Your task to perform on an android device: Go to eBay Image 0: 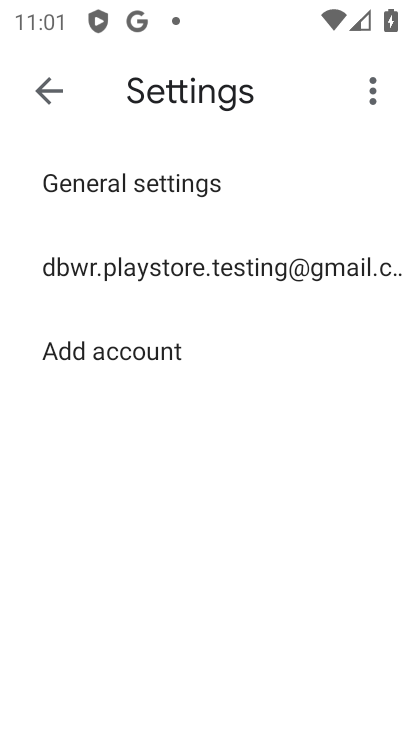
Step 0: press home button
Your task to perform on an android device: Go to eBay Image 1: 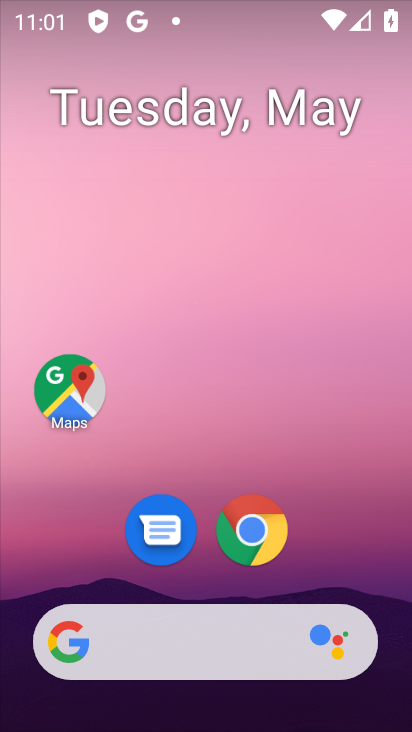
Step 1: click (249, 533)
Your task to perform on an android device: Go to eBay Image 2: 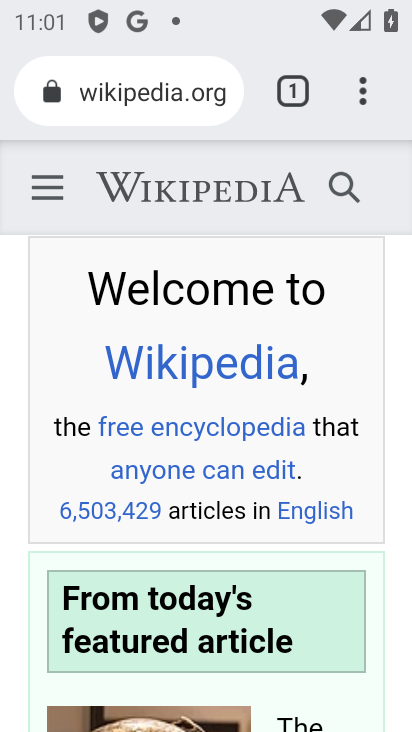
Step 2: click (161, 104)
Your task to perform on an android device: Go to eBay Image 3: 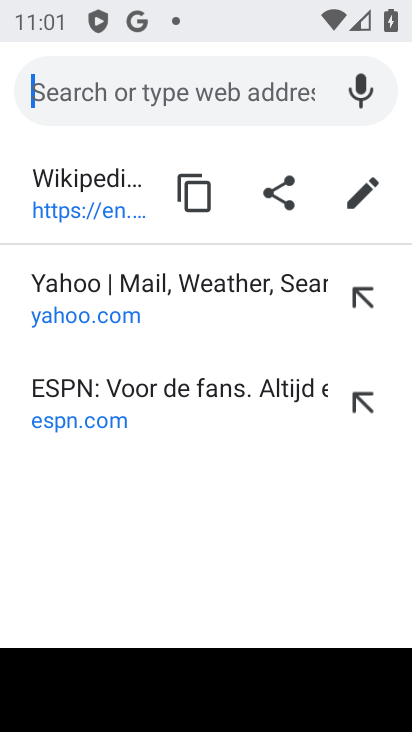
Step 3: type "ebay"
Your task to perform on an android device: Go to eBay Image 4: 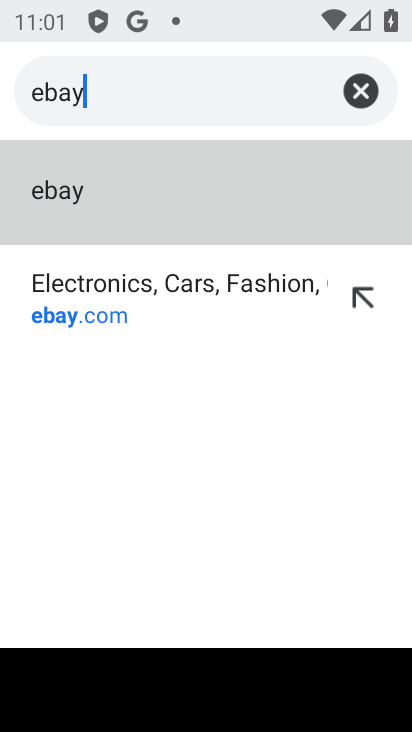
Step 4: click (85, 312)
Your task to perform on an android device: Go to eBay Image 5: 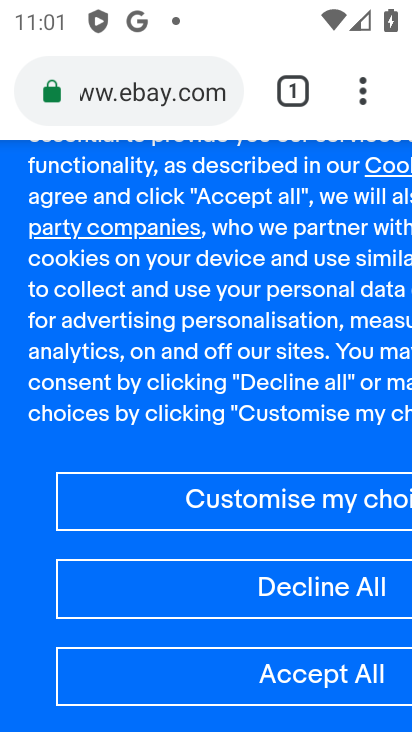
Step 5: task complete